Your task to perform on an android device: change your default location settings in chrome Image 0: 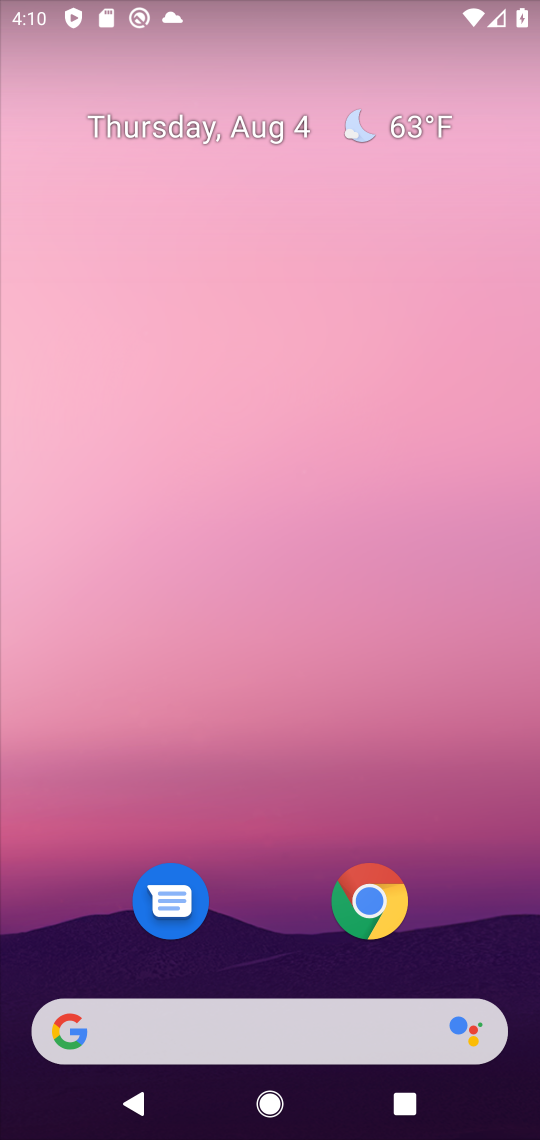
Step 0: drag from (258, 923) to (439, 176)
Your task to perform on an android device: change your default location settings in chrome Image 1: 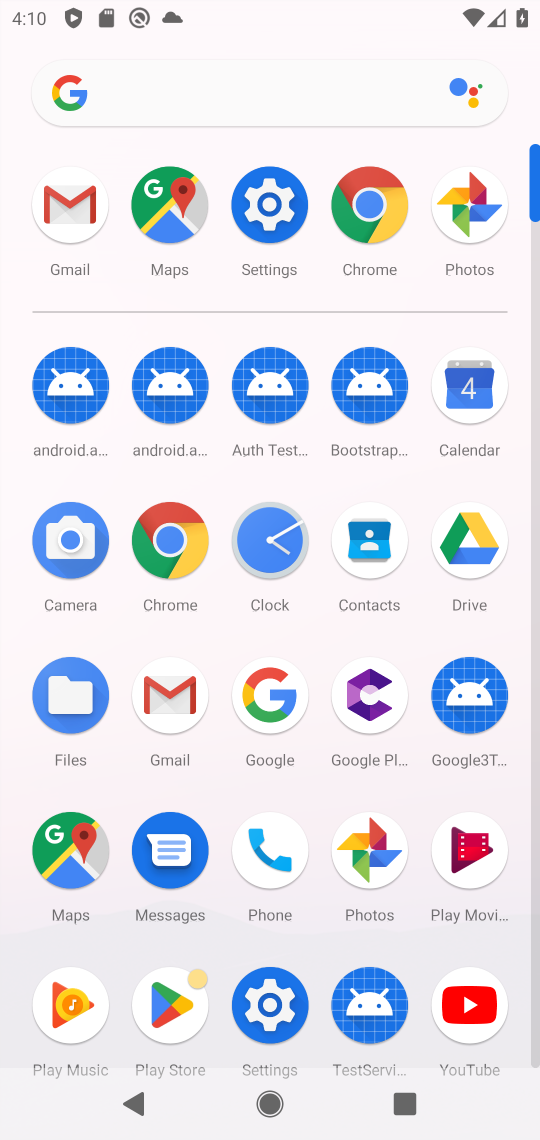
Step 1: click (162, 535)
Your task to perform on an android device: change your default location settings in chrome Image 2: 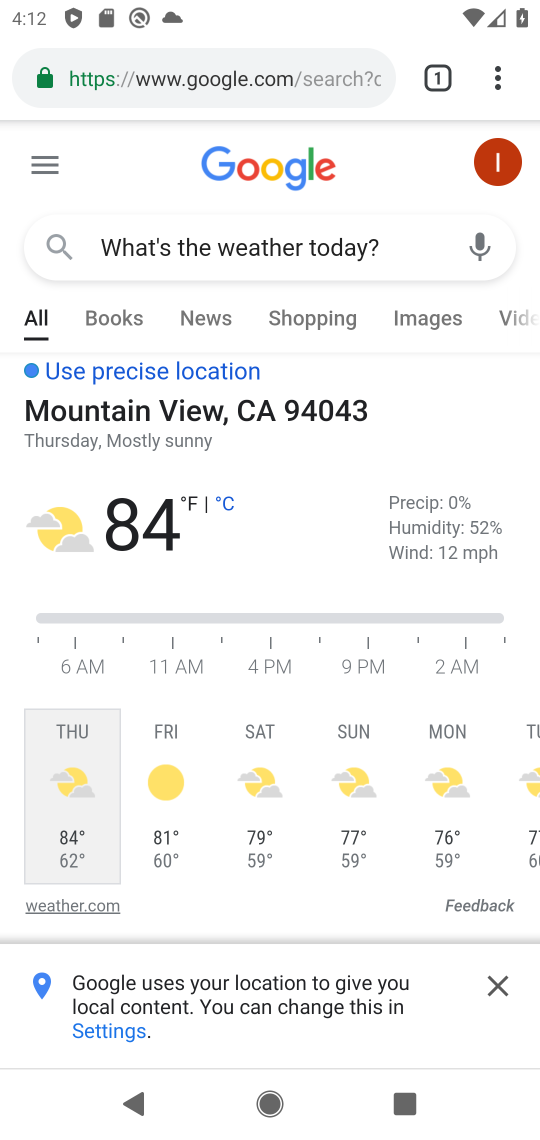
Step 2: drag from (492, 74) to (203, 1010)
Your task to perform on an android device: change your default location settings in chrome Image 3: 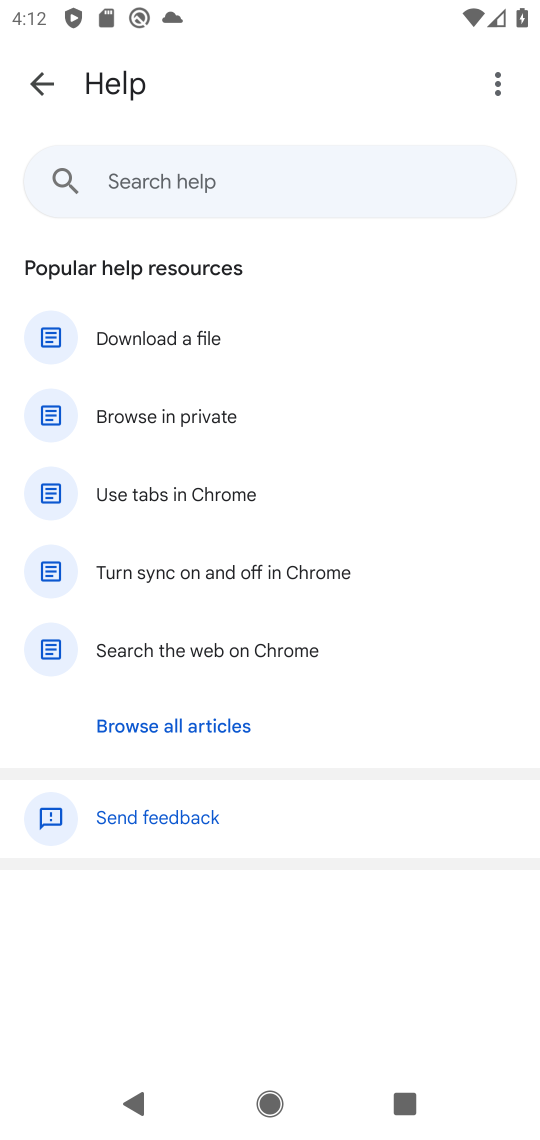
Step 3: click (56, 80)
Your task to perform on an android device: change your default location settings in chrome Image 4: 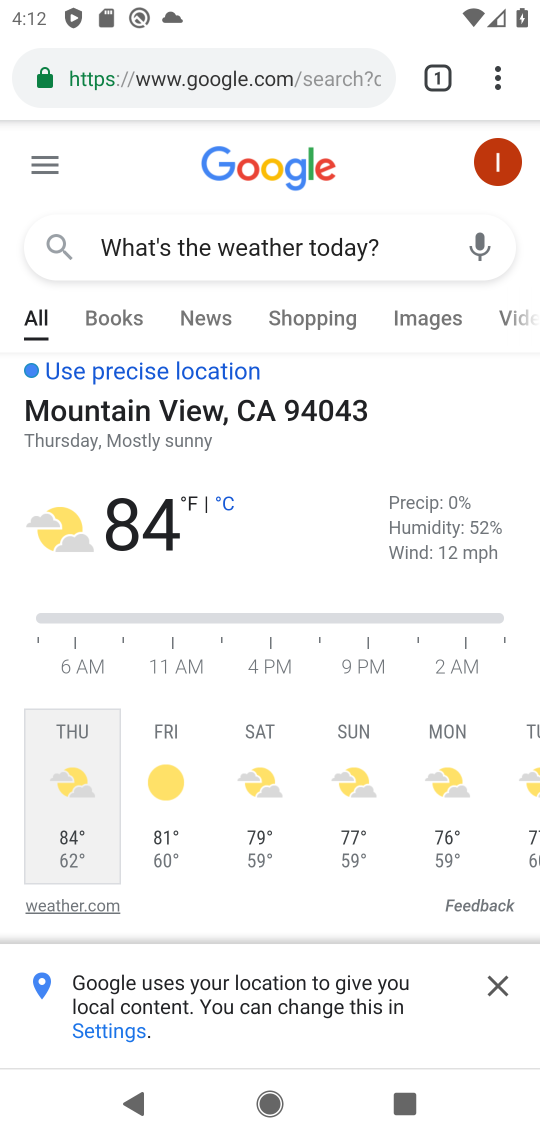
Step 4: drag from (506, 76) to (218, 954)
Your task to perform on an android device: change your default location settings in chrome Image 5: 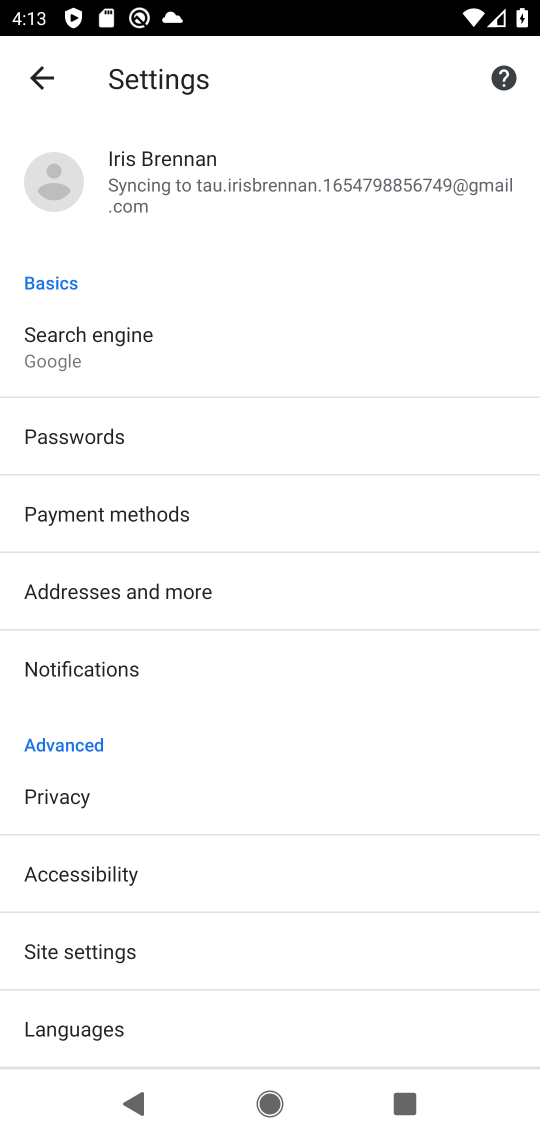
Step 5: click (57, 947)
Your task to perform on an android device: change your default location settings in chrome Image 6: 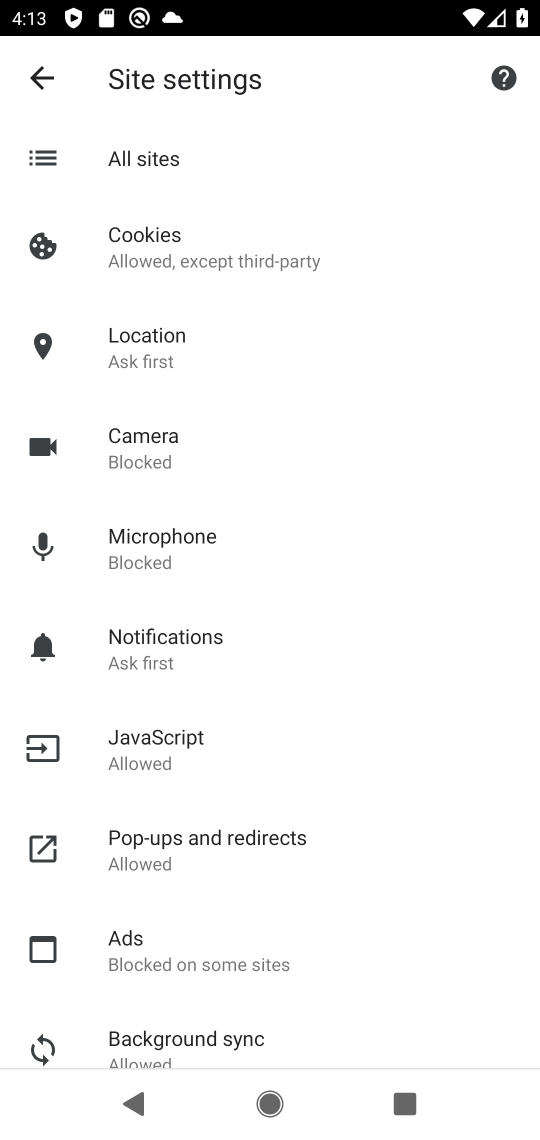
Step 6: click (124, 347)
Your task to perform on an android device: change your default location settings in chrome Image 7: 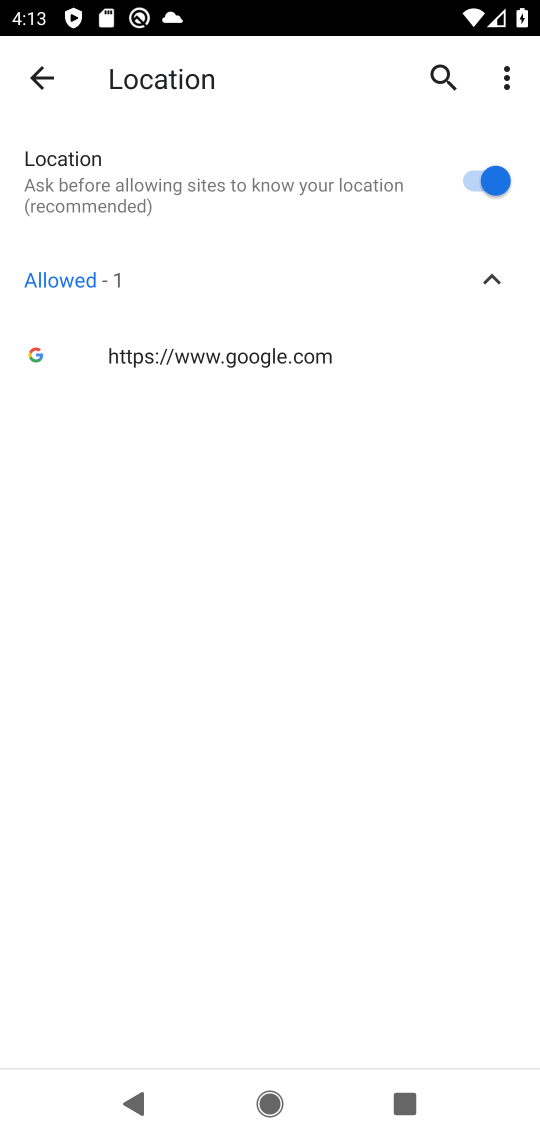
Step 7: click (461, 179)
Your task to perform on an android device: change your default location settings in chrome Image 8: 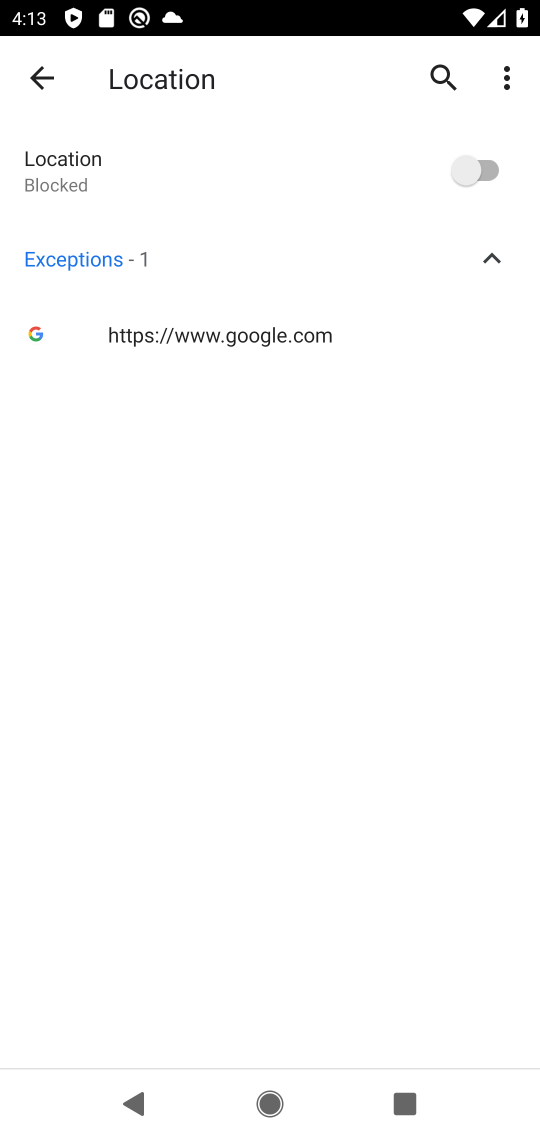
Step 8: task complete